Your task to perform on an android device: Open the phone app and click the voicemail tab. Image 0: 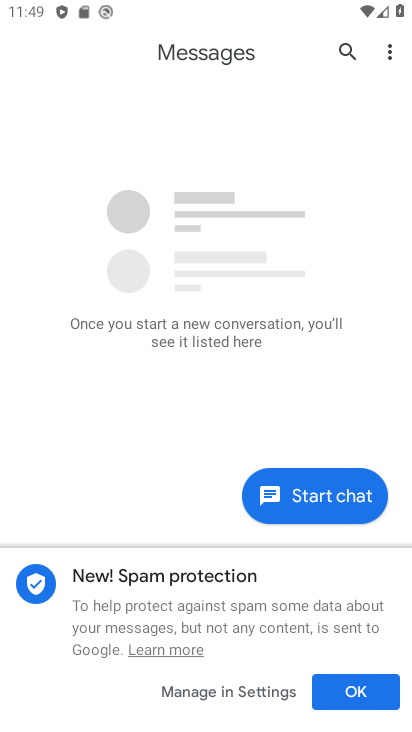
Step 0: press home button
Your task to perform on an android device: Open the phone app and click the voicemail tab. Image 1: 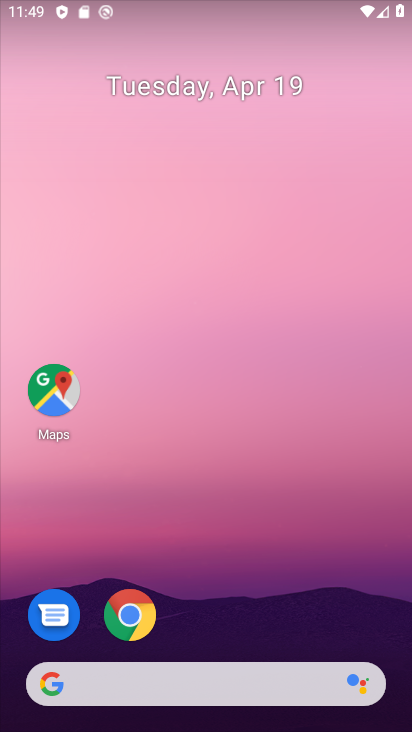
Step 1: drag from (351, 640) to (402, 462)
Your task to perform on an android device: Open the phone app and click the voicemail tab. Image 2: 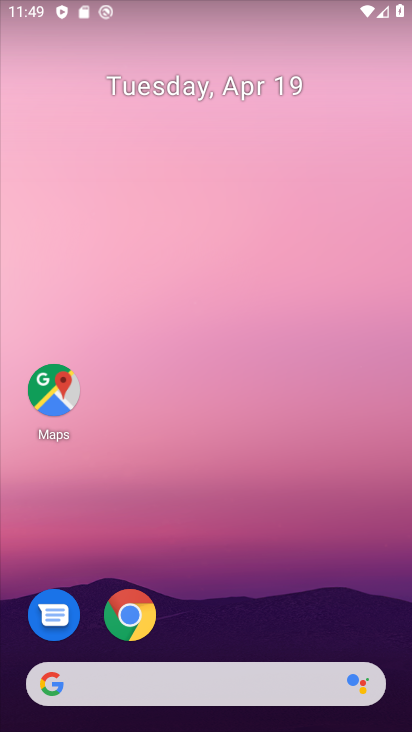
Step 2: drag from (222, 597) to (229, 26)
Your task to perform on an android device: Open the phone app and click the voicemail tab. Image 3: 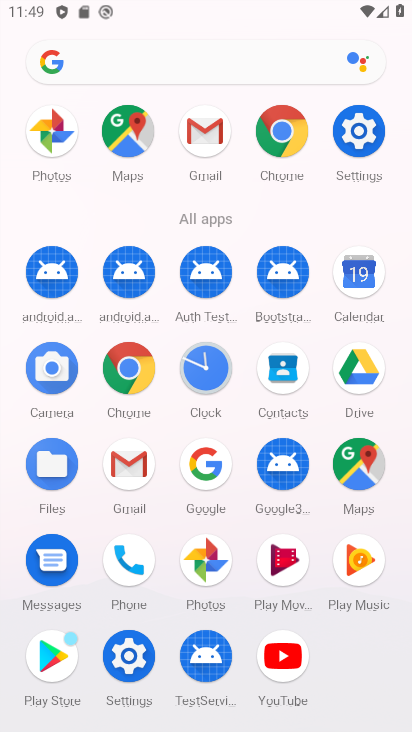
Step 3: click (119, 565)
Your task to perform on an android device: Open the phone app and click the voicemail tab. Image 4: 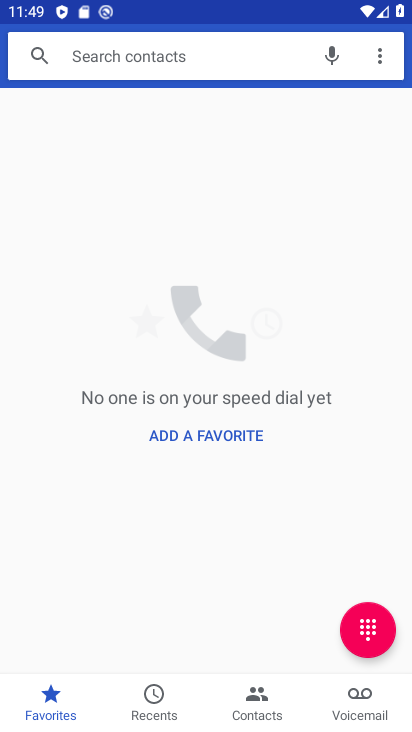
Step 4: click (362, 711)
Your task to perform on an android device: Open the phone app and click the voicemail tab. Image 5: 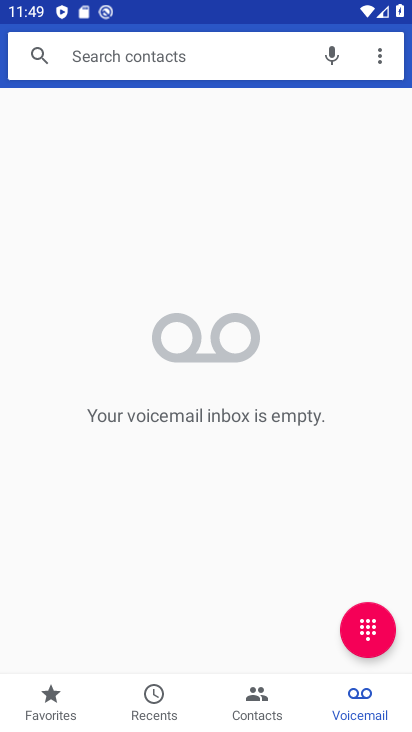
Step 5: task complete